Your task to perform on an android device: Find coffee shops on Maps Image 0: 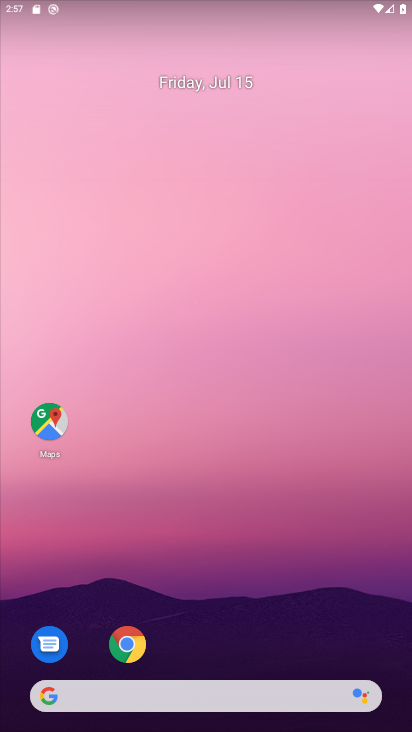
Step 0: click (57, 423)
Your task to perform on an android device: Find coffee shops on Maps Image 1: 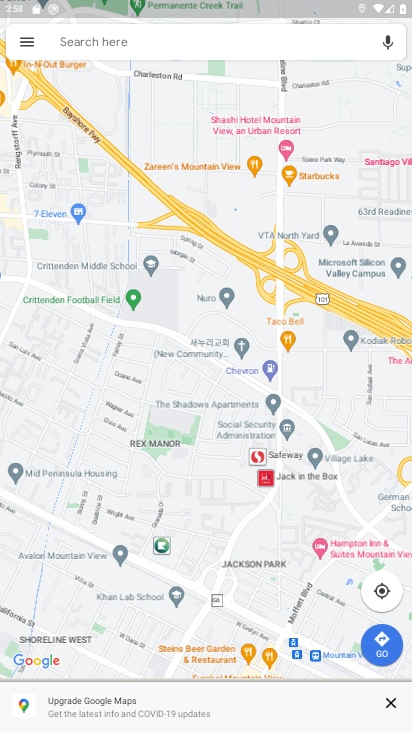
Step 1: click (138, 49)
Your task to perform on an android device: Find coffee shops on Maps Image 2: 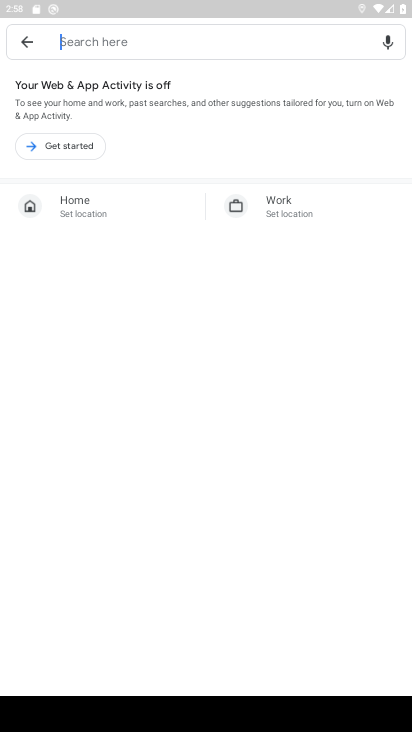
Step 2: type "coffee shops"
Your task to perform on an android device: Find coffee shops on Maps Image 3: 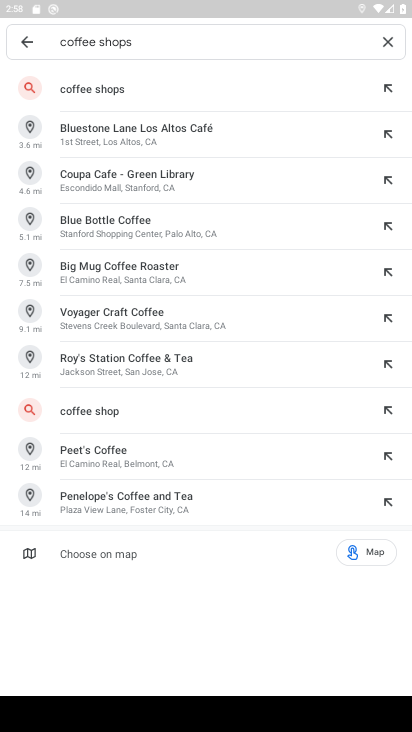
Step 3: click (118, 80)
Your task to perform on an android device: Find coffee shops on Maps Image 4: 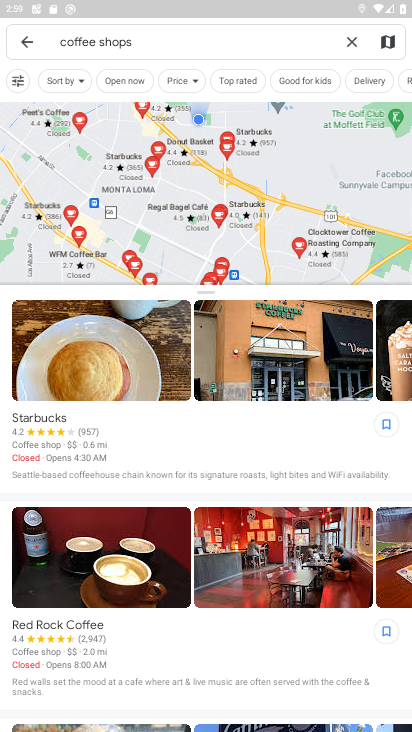
Step 4: task complete